Your task to perform on an android device: Go to Android settings Image 0: 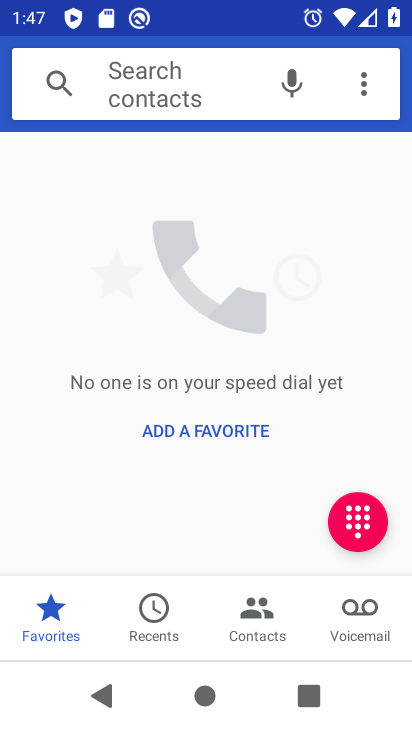
Step 0: press home button
Your task to perform on an android device: Go to Android settings Image 1: 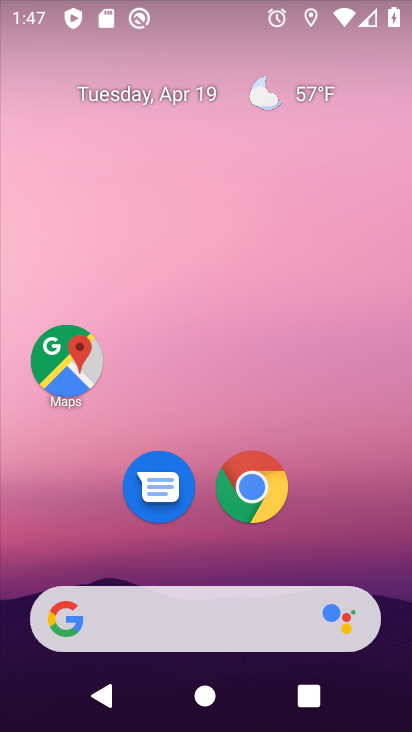
Step 1: drag from (355, 504) to (379, 73)
Your task to perform on an android device: Go to Android settings Image 2: 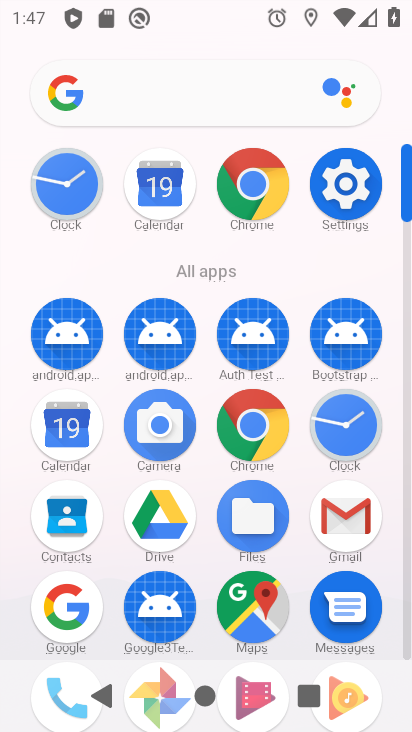
Step 2: click (350, 182)
Your task to perform on an android device: Go to Android settings Image 3: 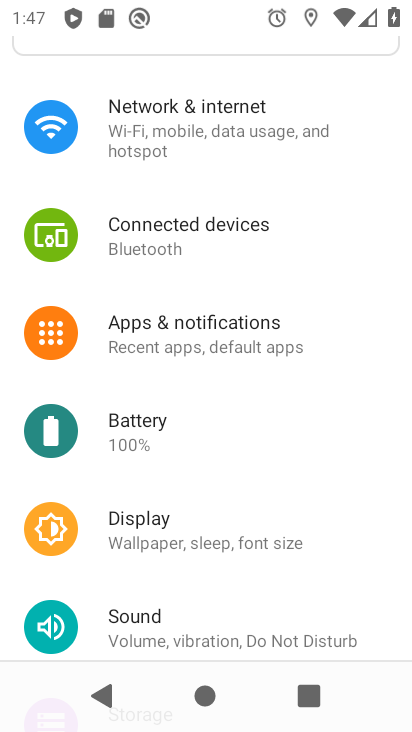
Step 3: drag from (292, 544) to (316, 111)
Your task to perform on an android device: Go to Android settings Image 4: 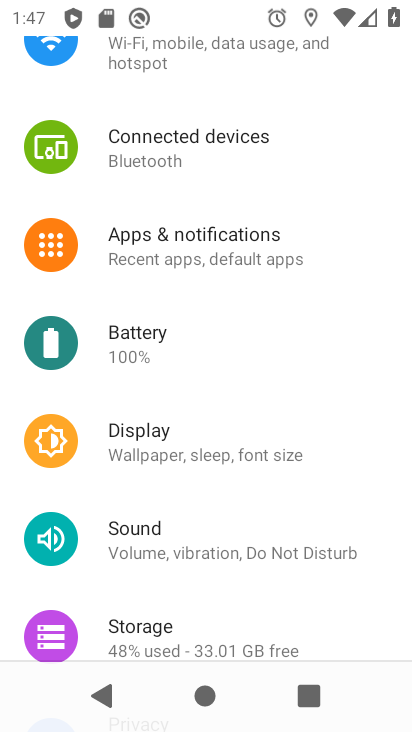
Step 4: drag from (334, 570) to (351, 146)
Your task to perform on an android device: Go to Android settings Image 5: 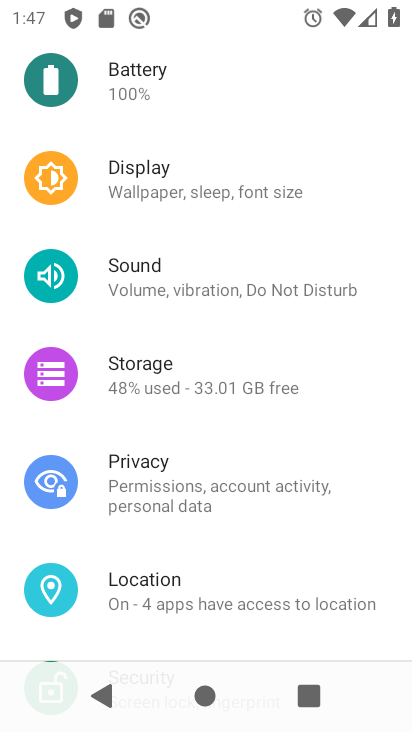
Step 5: drag from (345, 561) to (349, 195)
Your task to perform on an android device: Go to Android settings Image 6: 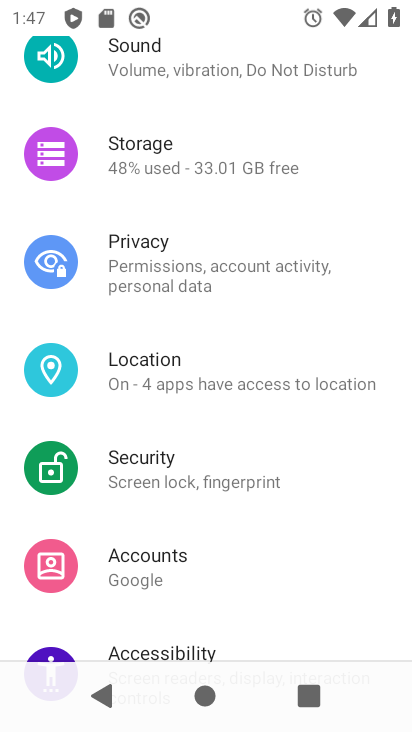
Step 6: drag from (325, 569) to (359, 123)
Your task to perform on an android device: Go to Android settings Image 7: 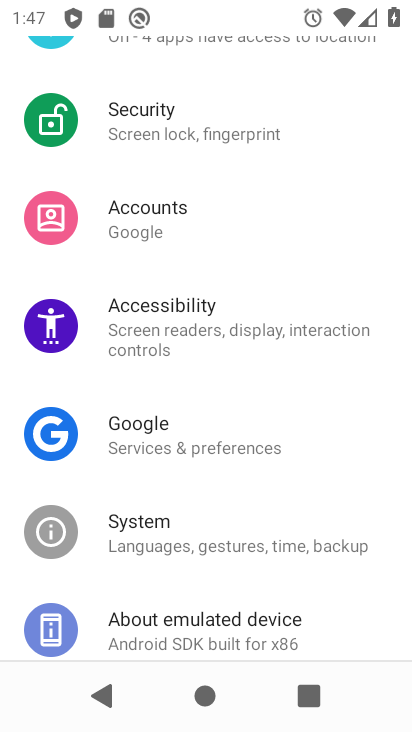
Step 7: drag from (326, 499) to (347, 158)
Your task to perform on an android device: Go to Android settings Image 8: 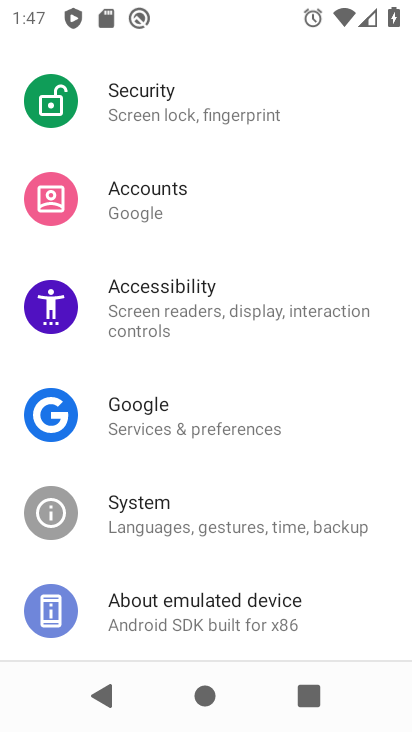
Step 8: drag from (329, 227) to (360, 580)
Your task to perform on an android device: Go to Android settings Image 9: 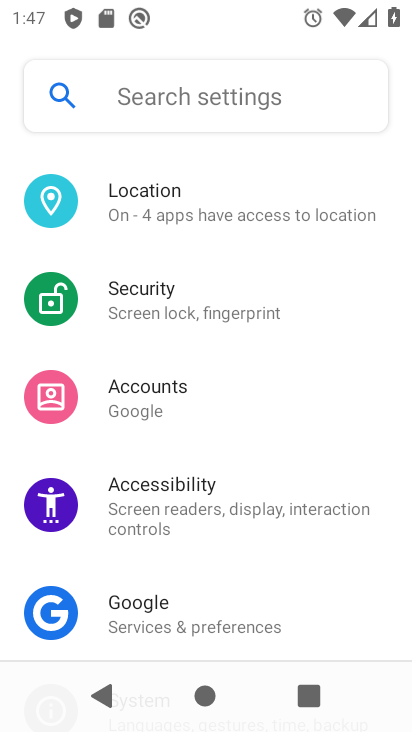
Step 9: drag from (312, 364) to (321, 556)
Your task to perform on an android device: Go to Android settings Image 10: 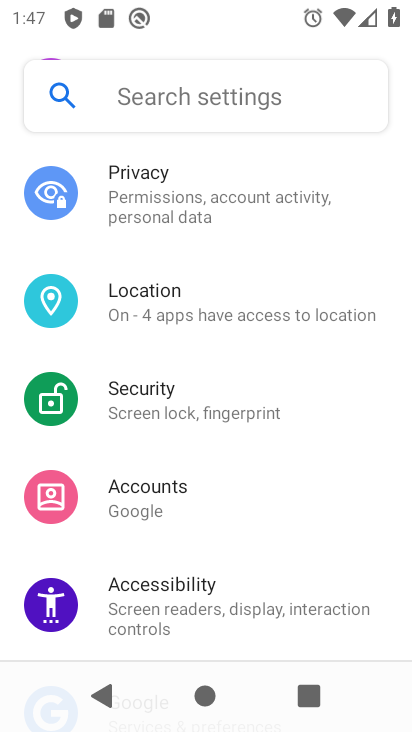
Step 10: drag from (252, 226) to (334, 564)
Your task to perform on an android device: Go to Android settings Image 11: 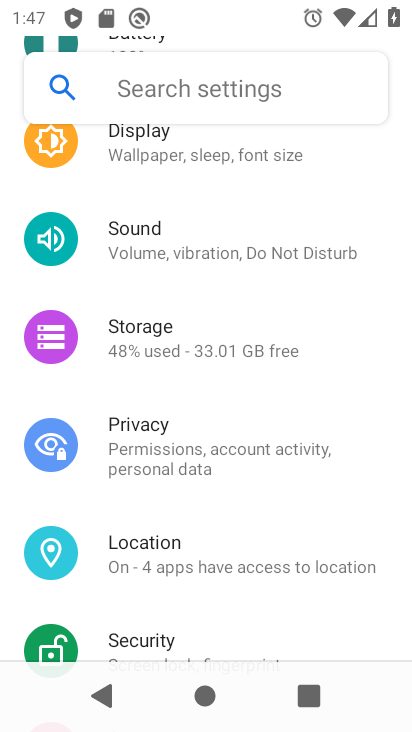
Step 11: drag from (289, 326) to (286, 607)
Your task to perform on an android device: Go to Android settings Image 12: 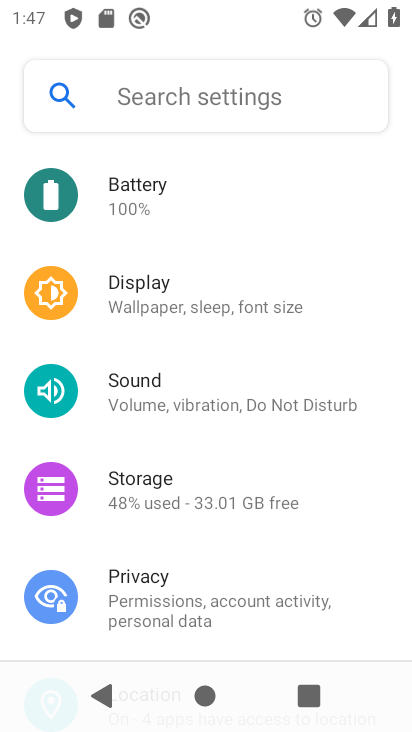
Step 12: drag from (313, 628) to (314, 191)
Your task to perform on an android device: Go to Android settings Image 13: 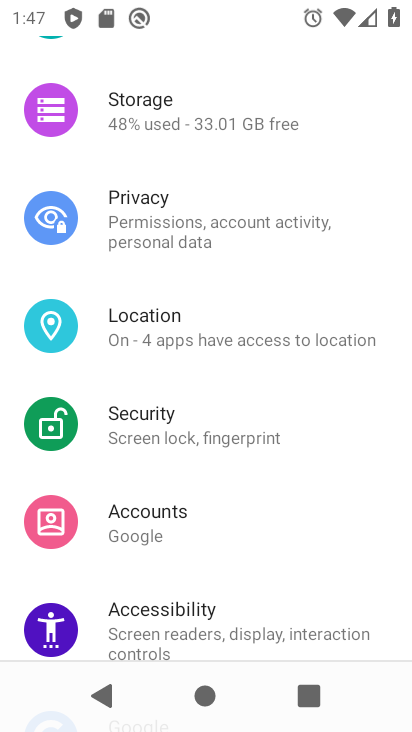
Step 13: drag from (321, 617) to (362, 186)
Your task to perform on an android device: Go to Android settings Image 14: 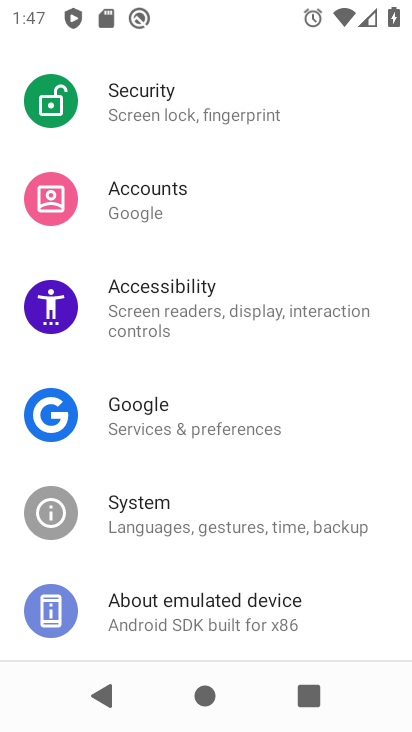
Step 14: click (276, 615)
Your task to perform on an android device: Go to Android settings Image 15: 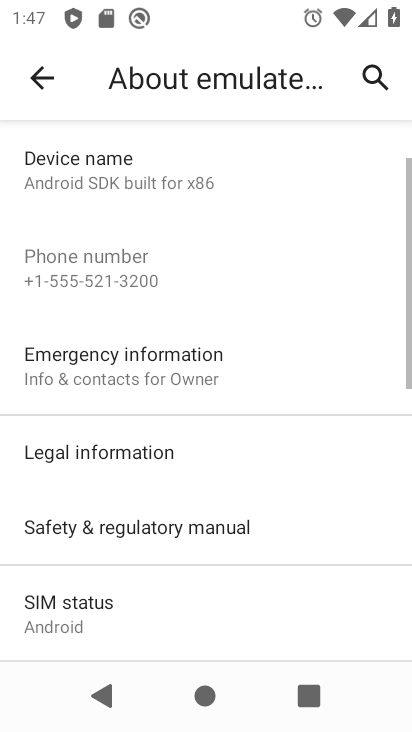
Step 15: task complete